Your task to perform on an android device: turn on data saver in the chrome app Image 0: 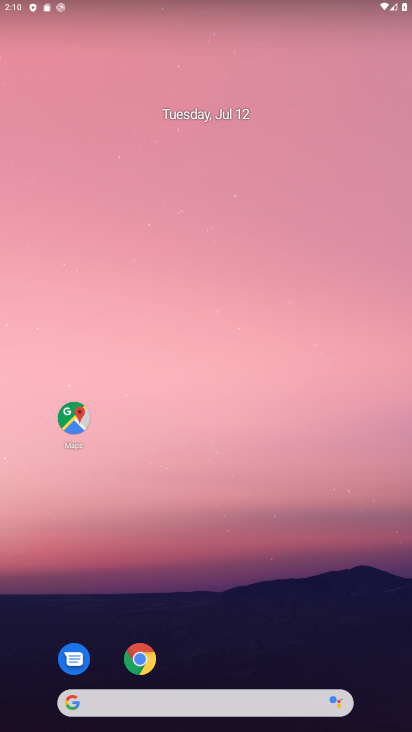
Step 0: click (147, 648)
Your task to perform on an android device: turn on data saver in the chrome app Image 1: 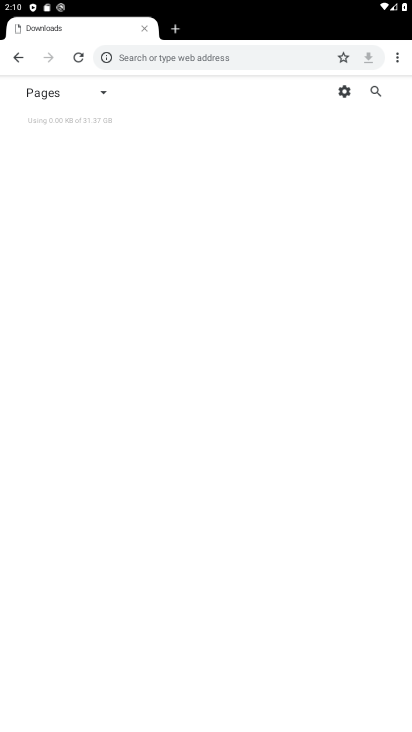
Step 1: click (394, 59)
Your task to perform on an android device: turn on data saver in the chrome app Image 2: 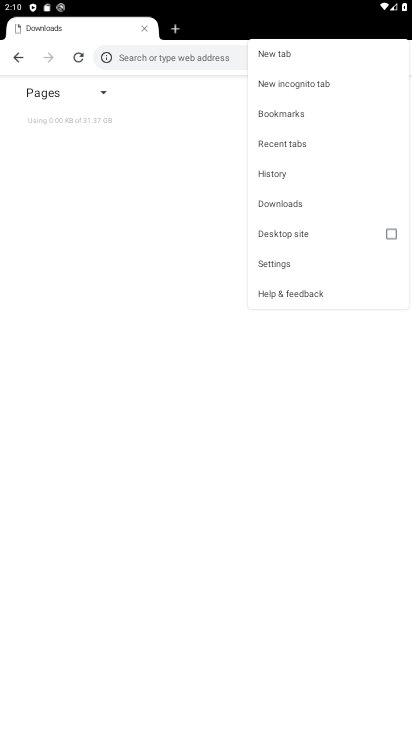
Step 2: click (316, 262)
Your task to perform on an android device: turn on data saver in the chrome app Image 3: 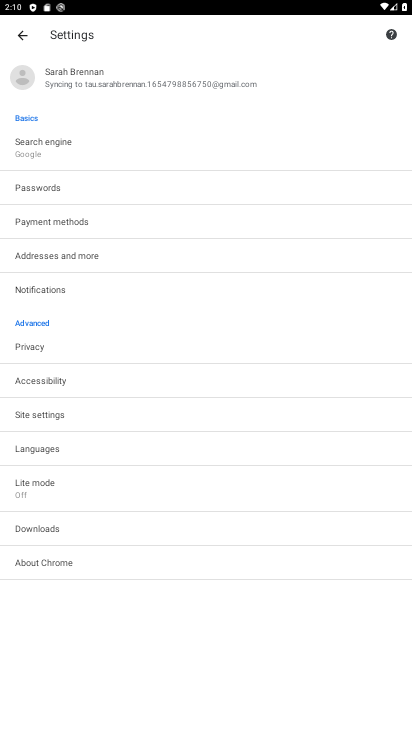
Step 3: click (39, 480)
Your task to perform on an android device: turn on data saver in the chrome app Image 4: 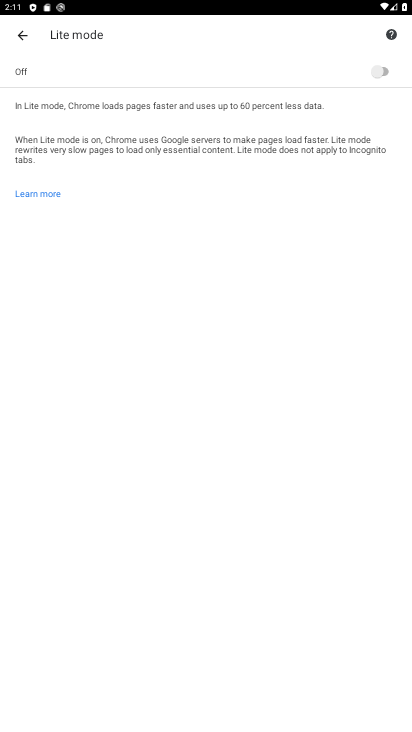
Step 4: click (382, 73)
Your task to perform on an android device: turn on data saver in the chrome app Image 5: 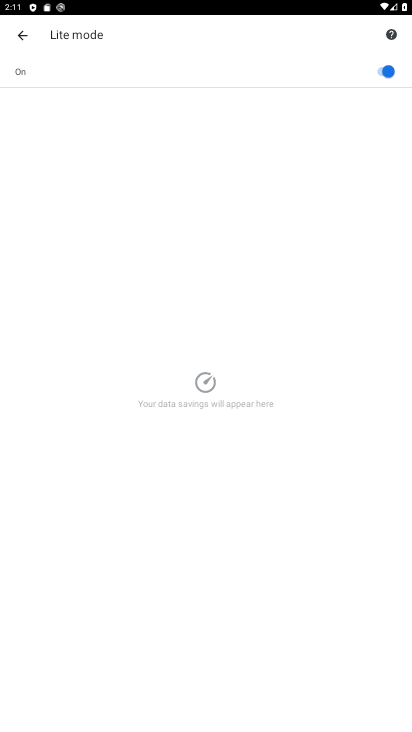
Step 5: task complete